Your task to perform on an android device: find snoozed emails in the gmail app Image 0: 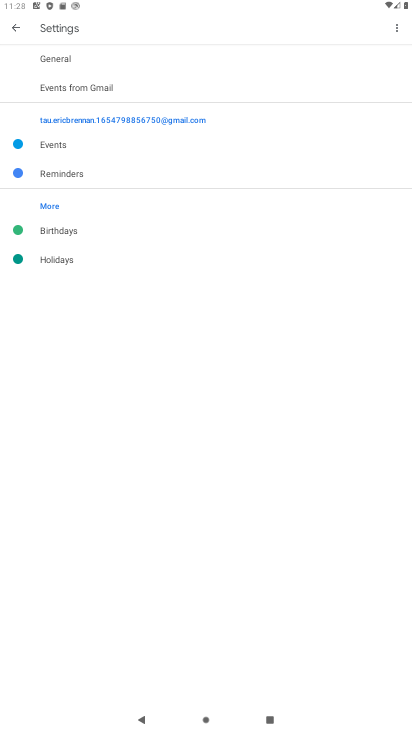
Step 0: press home button
Your task to perform on an android device: find snoozed emails in the gmail app Image 1: 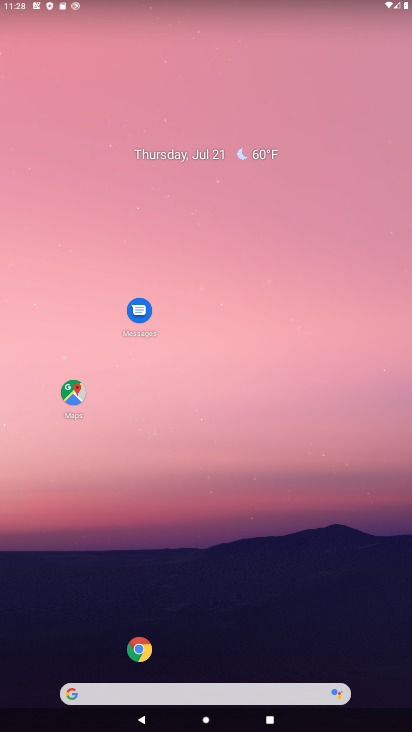
Step 1: drag from (52, 650) to (186, 170)
Your task to perform on an android device: find snoozed emails in the gmail app Image 2: 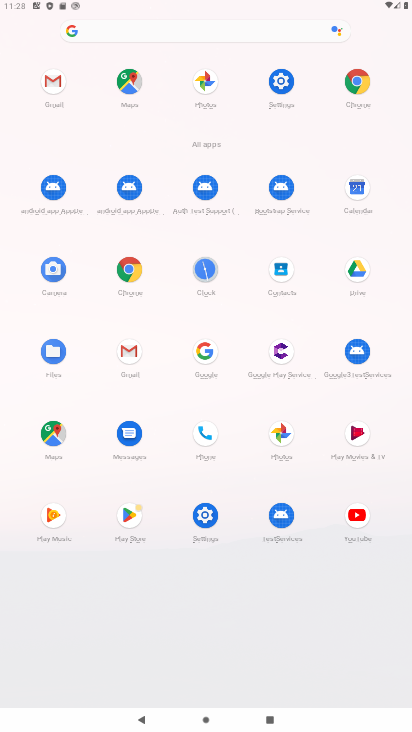
Step 2: click (128, 353)
Your task to perform on an android device: find snoozed emails in the gmail app Image 3: 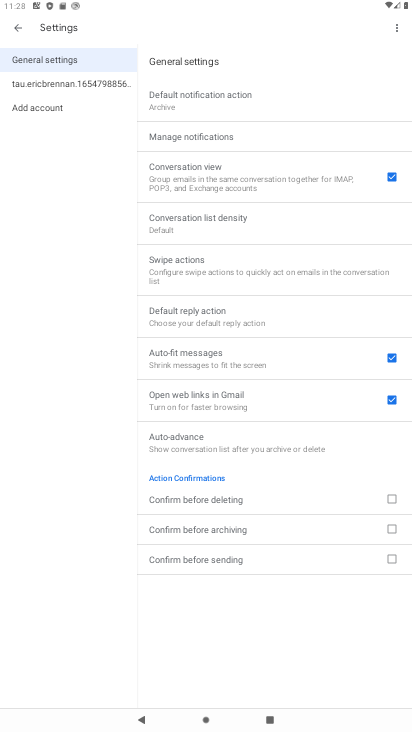
Step 3: click (11, 24)
Your task to perform on an android device: find snoozed emails in the gmail app Image 4: 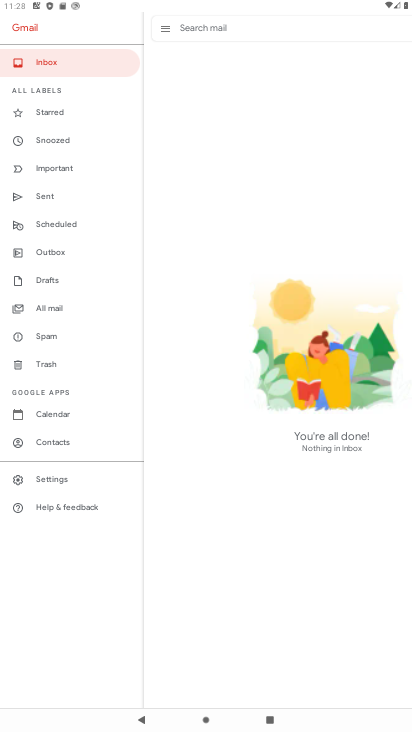
Step 4: click (52, 137)
Your task to perform on an android device: find snoozed emails in the gmail app Image 5: 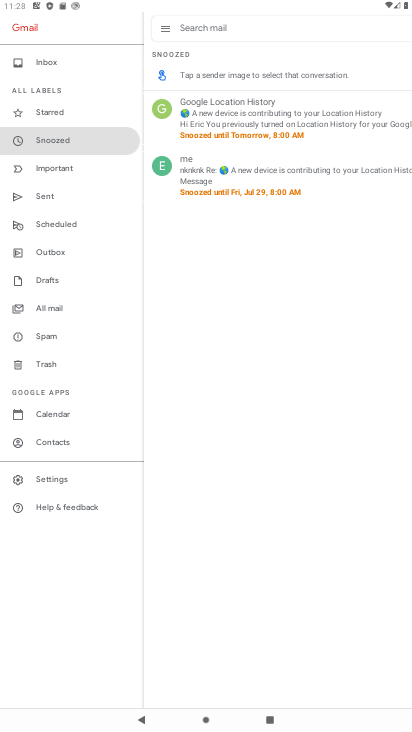
Step 5: task complete